Your task to perform on an android device: turn off location history Image 0: 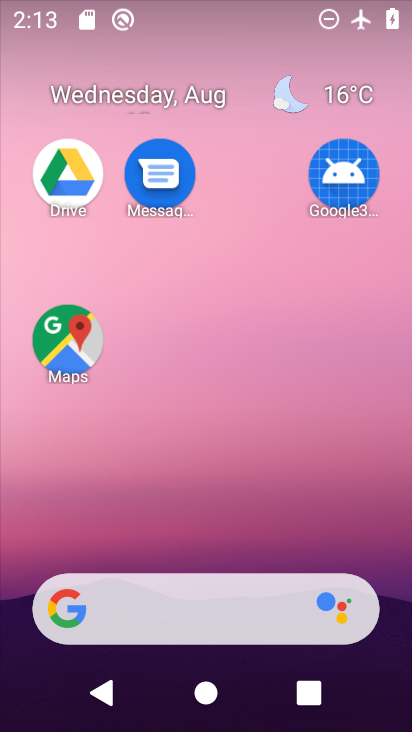
Step 0: drag from (176, 488) to (240, 8)
Your task to perform on an android device: turn off location history Image 1: 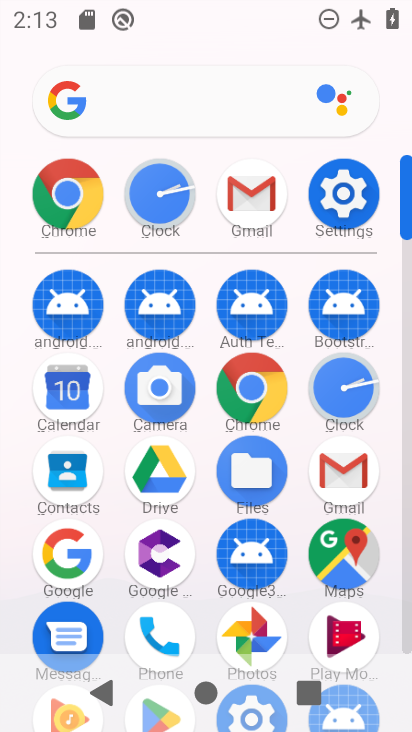
Step 1: click (360, 224)
Your task to perform on an android device: turn off location history Image 2: 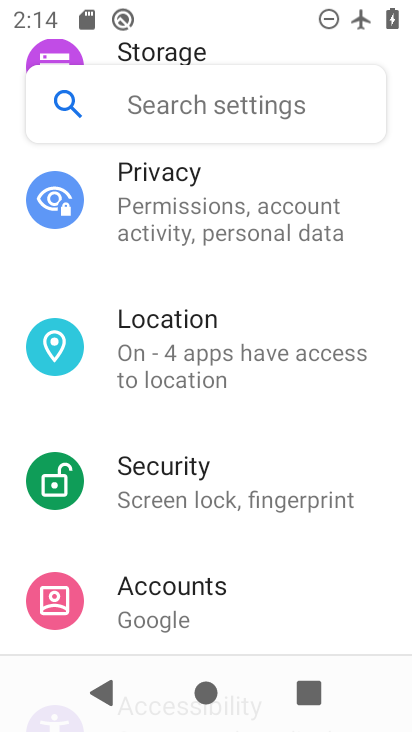
Step 2: click (198, 368)
Your task to perform on an android device: turn off location history Image 3: 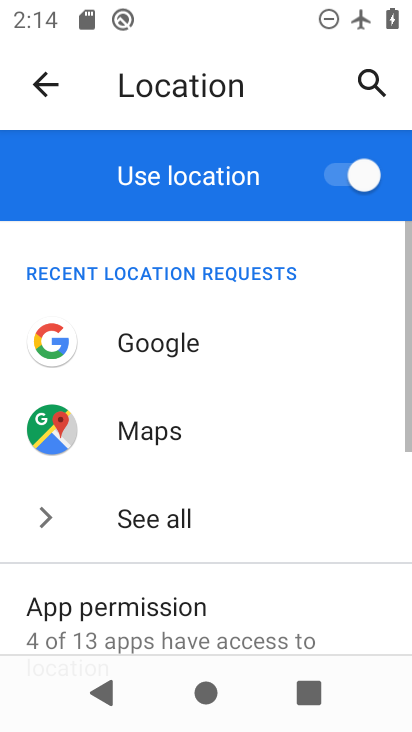
Step 3: drag from (136, 612) to (147, 204)
Your task to perform on an android device: turn off location history Image 4: 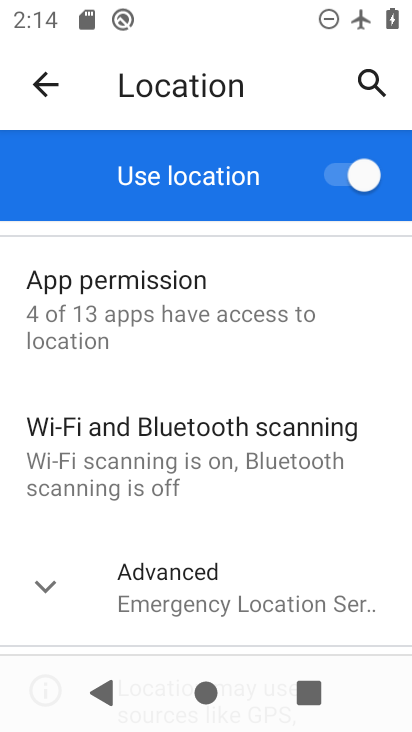
Step 4: click (214, 573)
Your task to perform on an android device: turn off location history Image 5: 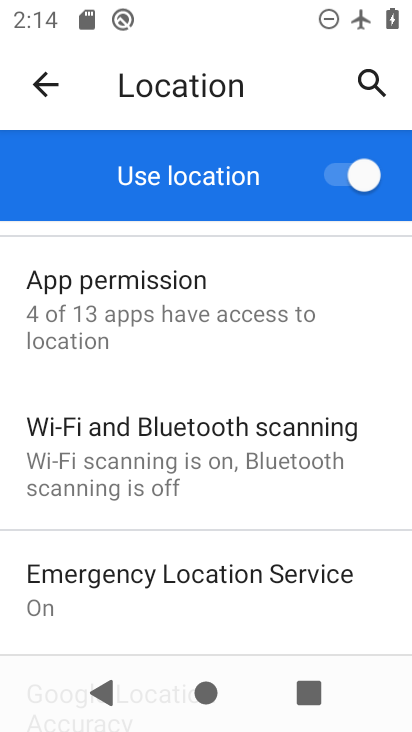
Step 5: drag from (192, 528) to (177, 211)
Your task to perform on an android device: turn off location history Image 6: 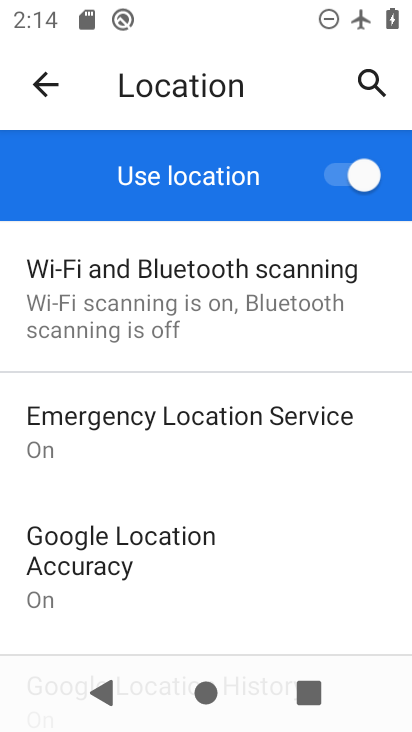
Step 6: drag from (171, 592) to (175, 218)
Your task to perform on an android device: turn off location history Image 7: 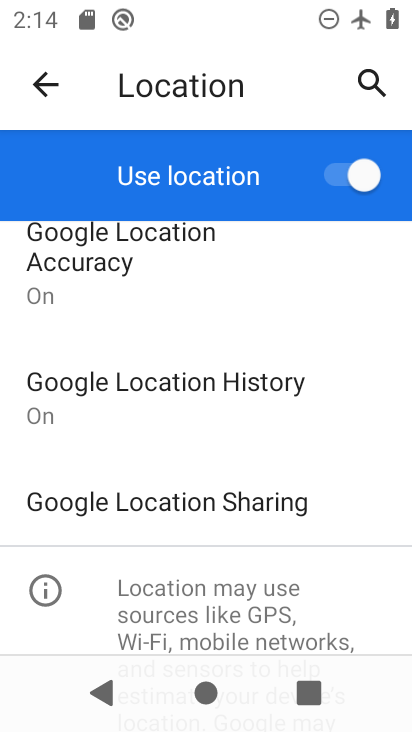
Step 7: click (259, 397)
Your task to perform on an android device: turn off location history Image 8: 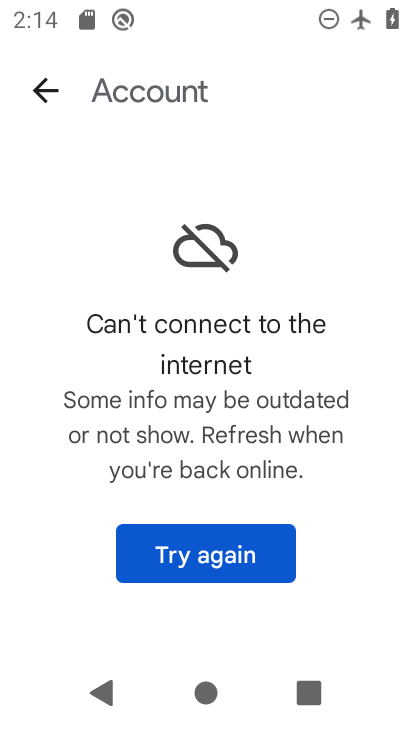
Step 8: drag from (287, 5) to (298, 723)
Your task to perform on an android device: turn off location history Image 9: 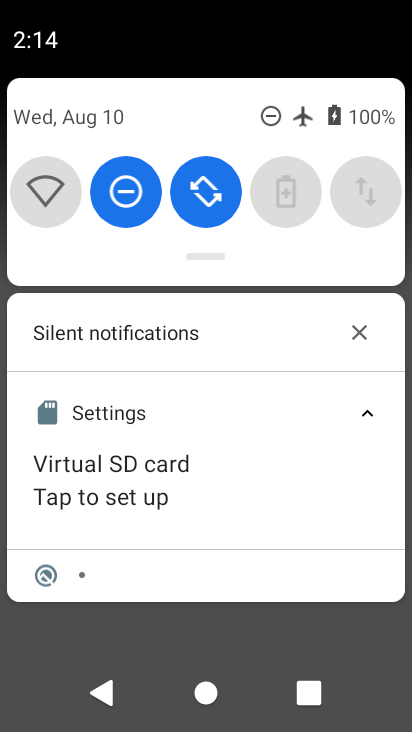
Step 9: drag from (218, 143) to (227, 602)
Your task to perform on an android device: turn off location history Image 10: 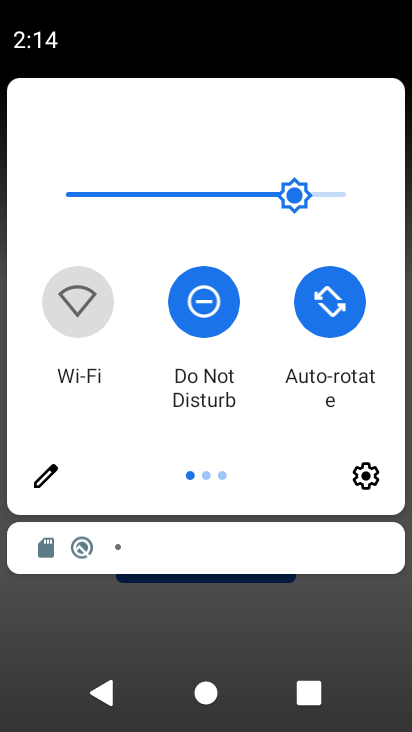
Step 10: drag from (329, 411) to (38, 351)
Your task to perform on an android device: turn off location history Image 11: 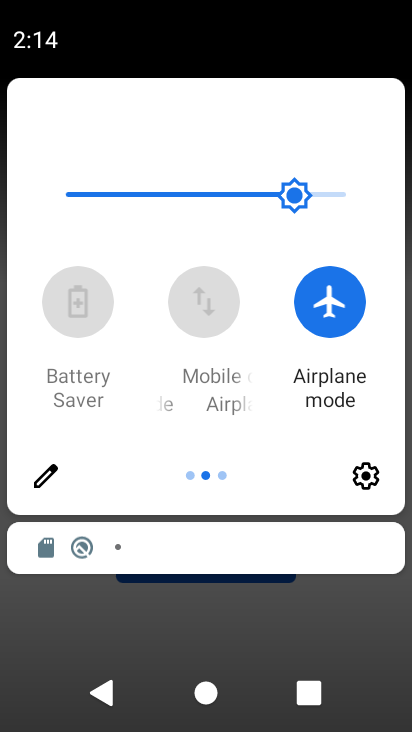
Step 11: click (308, 291)
Your task to perform on an android device: turn off location history Image 12: 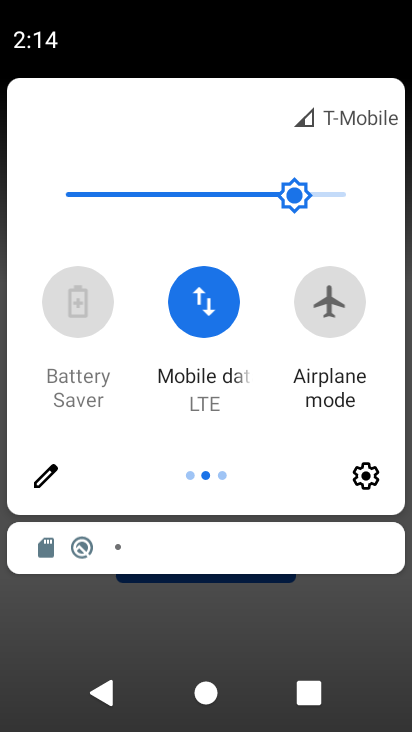
Step 12: task complete